Your task to perform on an android device: set the stopwatch Image 0: 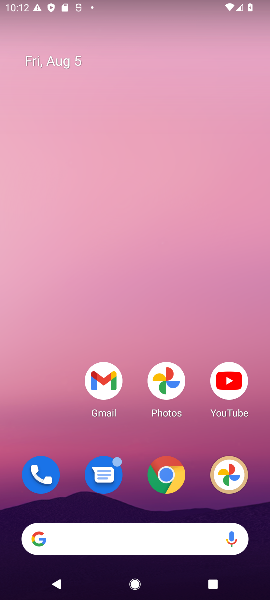
Step 0: drag from (126, 467) to (167, 0)
Your task to perform on an android device: set the stopwatch Image 1: 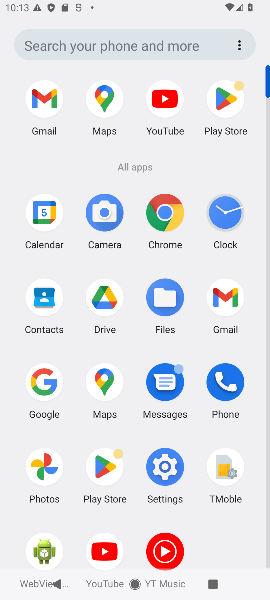
Step 1: click (228, 225)
Your task to perform on an android device: set the stopwatch Image 2: 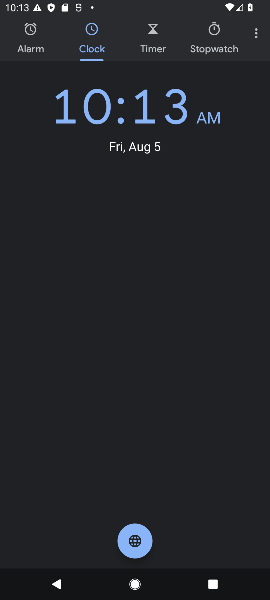
Step 2: click (214, 38)
Your task to perform on an android device: set the stopwatch Image 3: 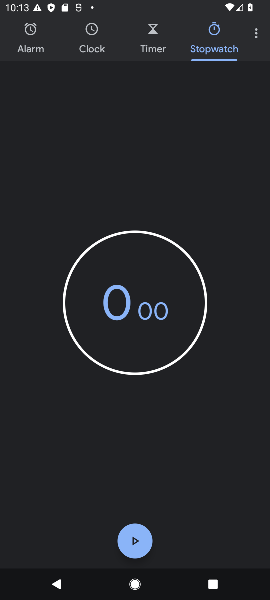
Step 3: click (137, 528)
Your task to perform on an android device: set the stopwatch Image 4: 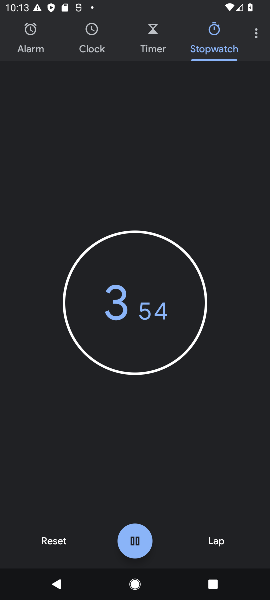
Step 4: task complete